Your task to perform on an android device: Open accessibility settings Image 0: 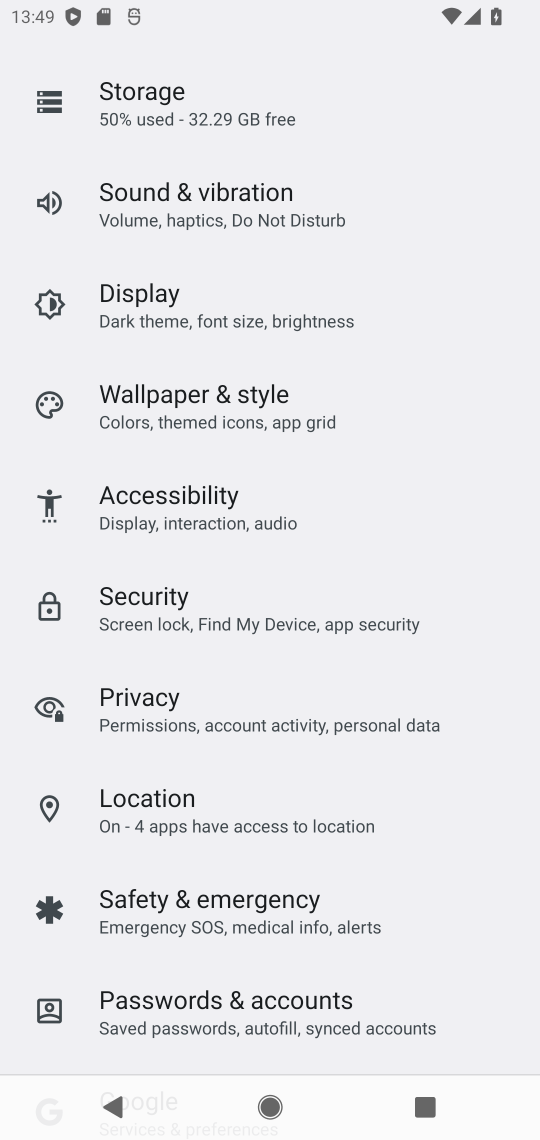
Step 0: press home button
Your task to perform on an android device: Open accessibility settings Image 1: 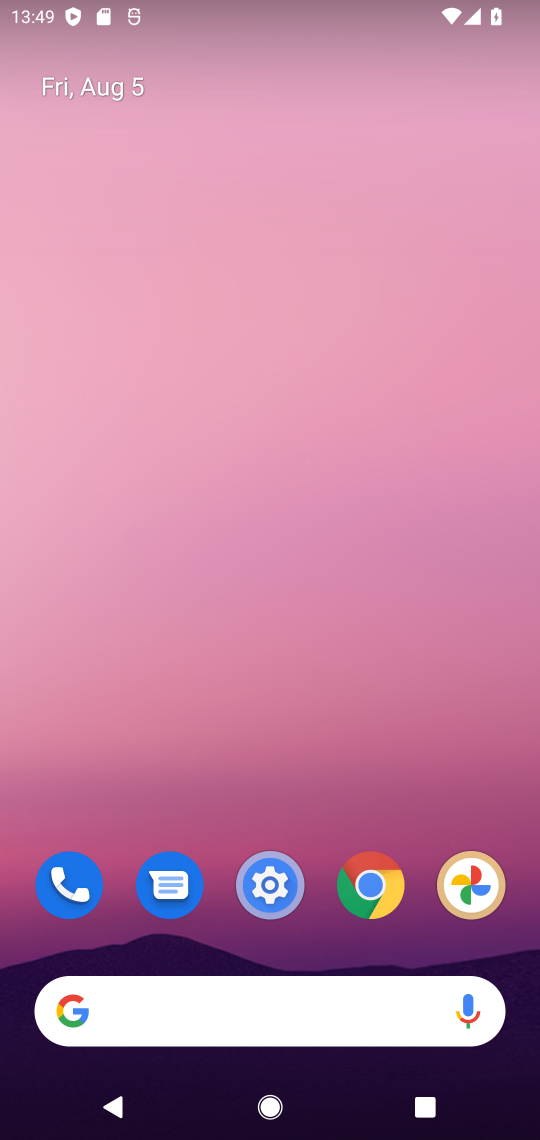
Step 1: click (265, 895)
Your task to perform on an android device: Open accessibility settings Image 2: 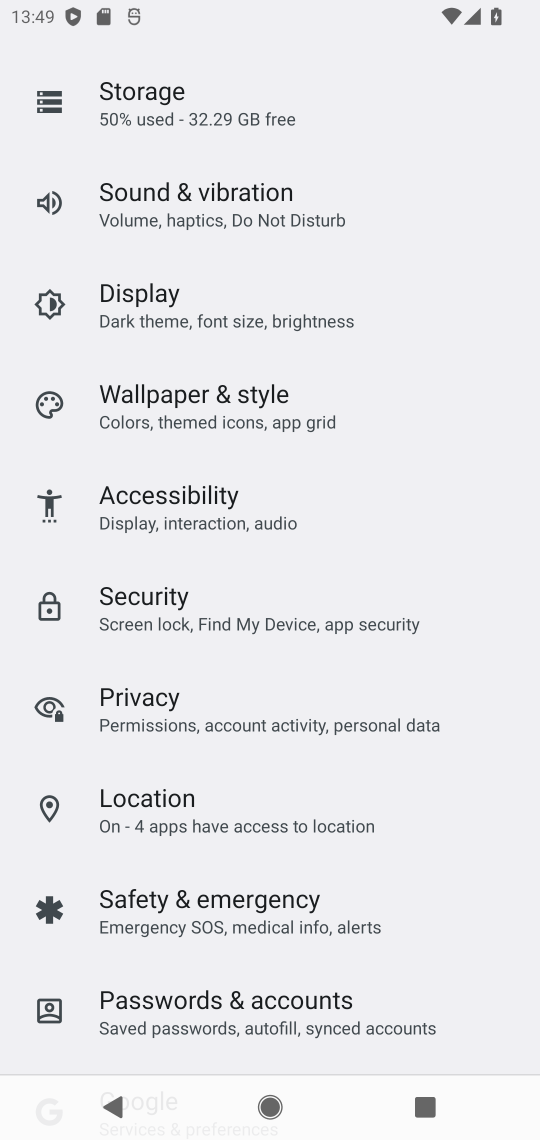
Step 2: click (154, 515)
Your task to perform on an android device: Open accessibility settings Image 3: 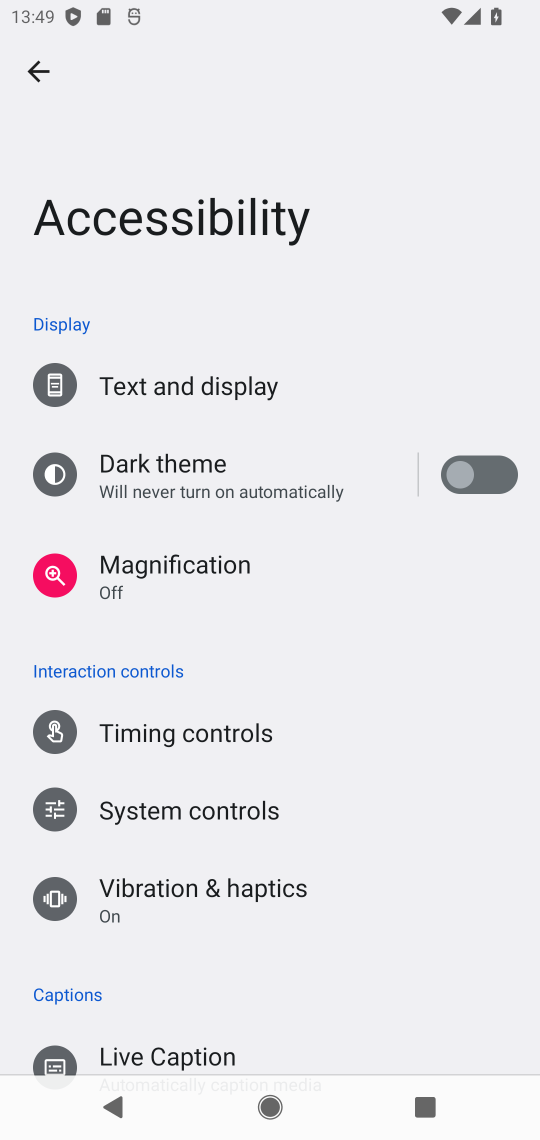
Step 3: task complete